Your task to perform on an android device: Go to wifi settings Image 0: 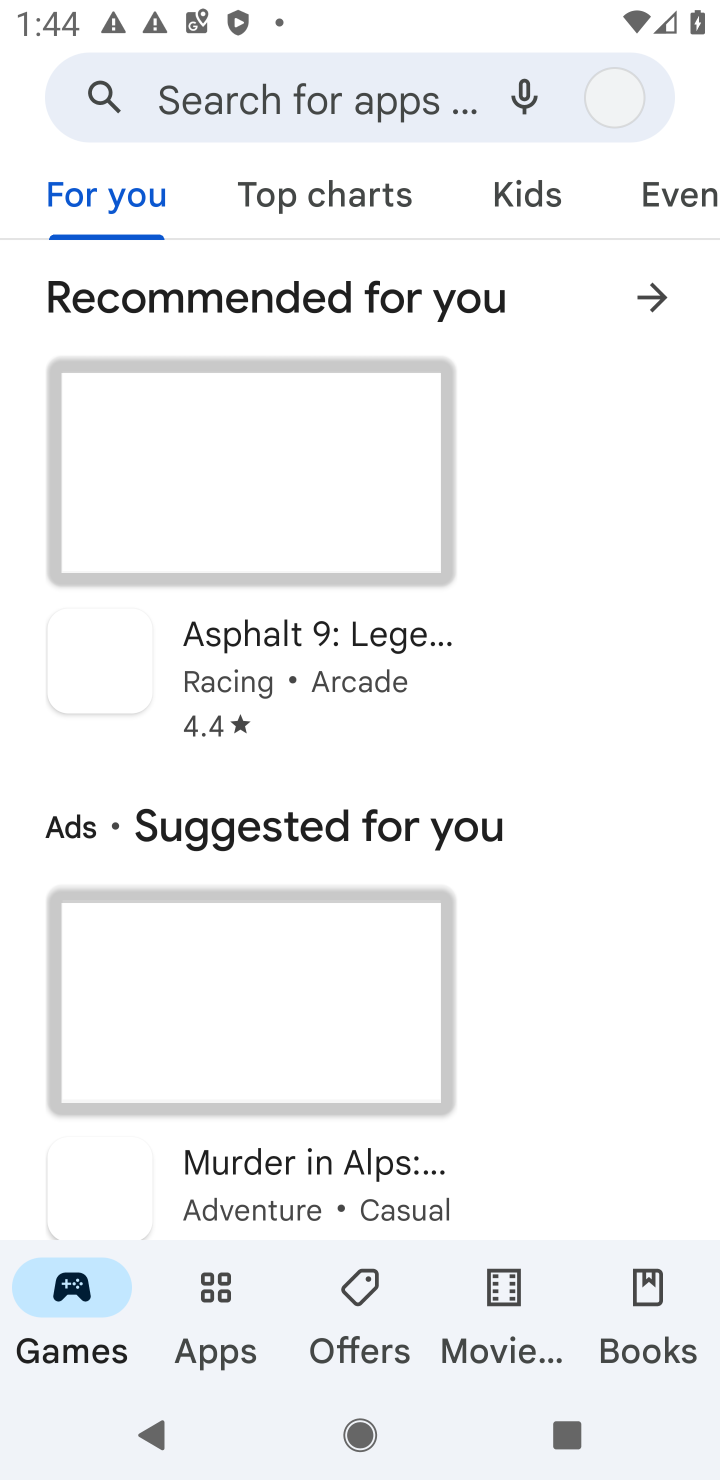
Step 0: press home button
Your task to perform on an android device: Go to wifi settings Image 1: 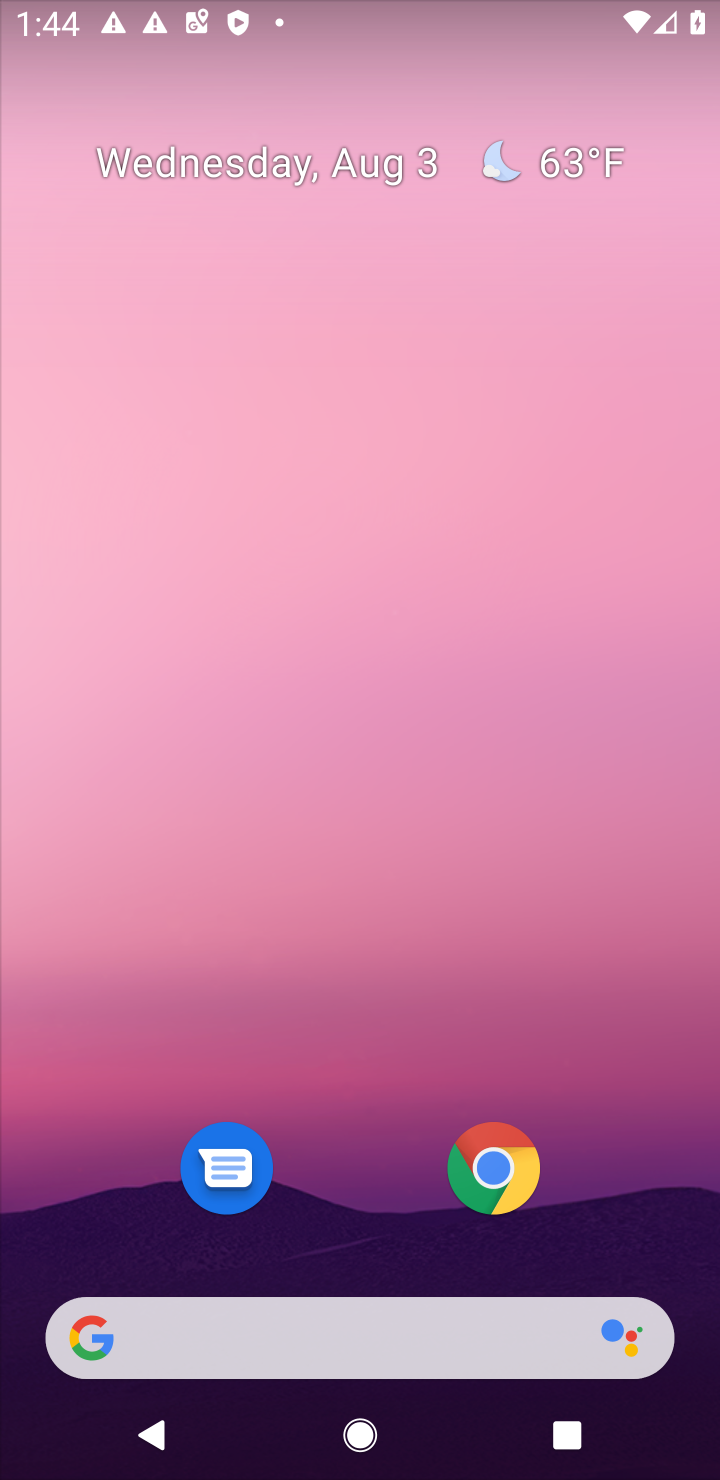
Step 1: drag from (657, 1230) to (572, 212)
Your task to perform on an android device: Go to wifi settings Image 2: 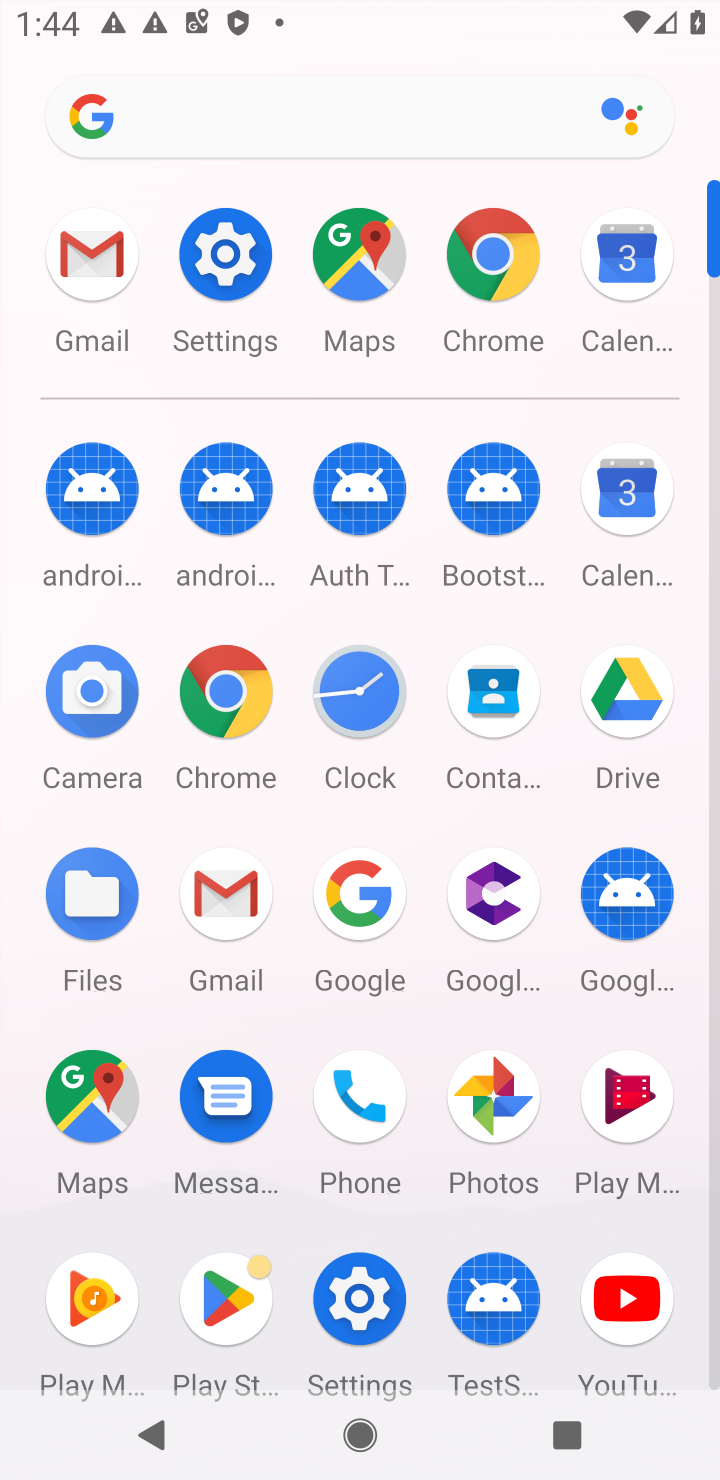
Step 2: click (357, 1301)
Your task to perform on an android device: Go to wifi settings Image 3: 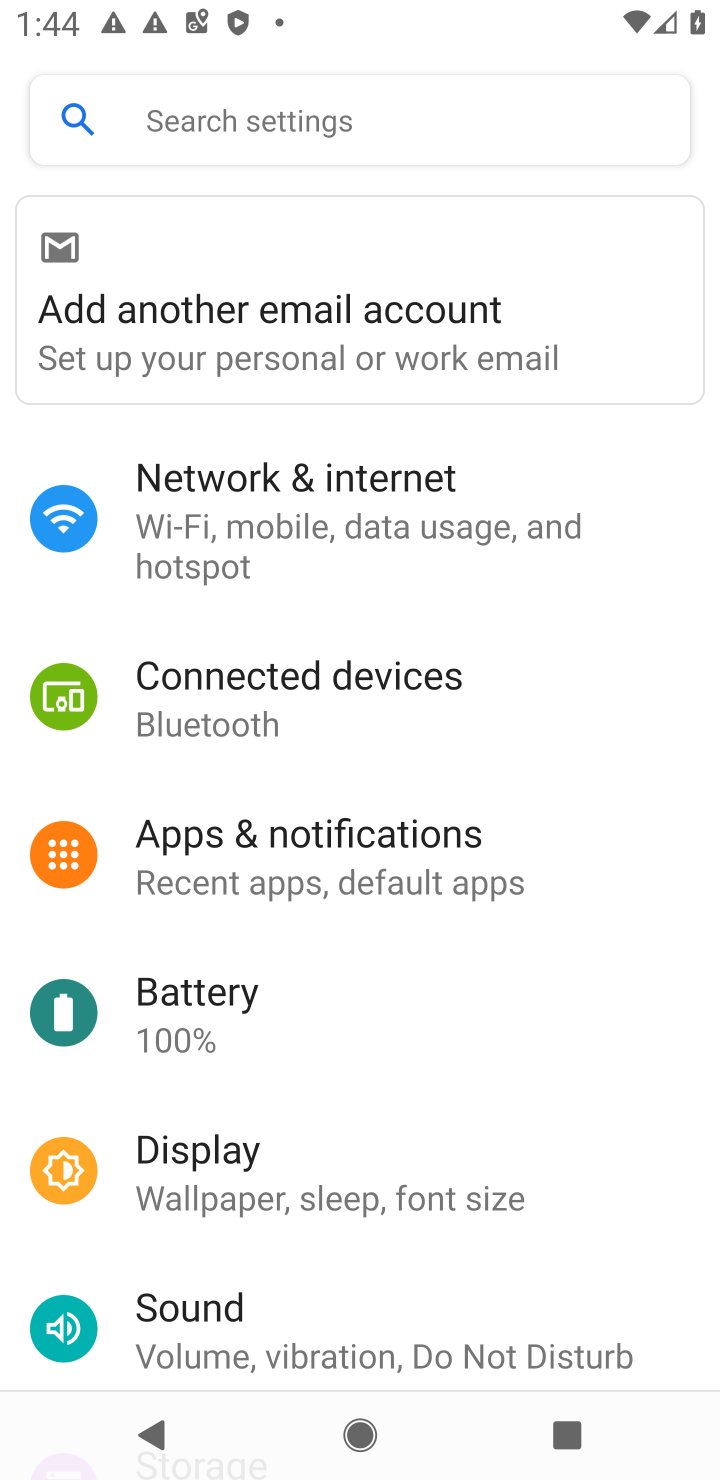
Step 3: click (241, 506)
Your task to perform on an android device: Go to wifi settings Image 4: 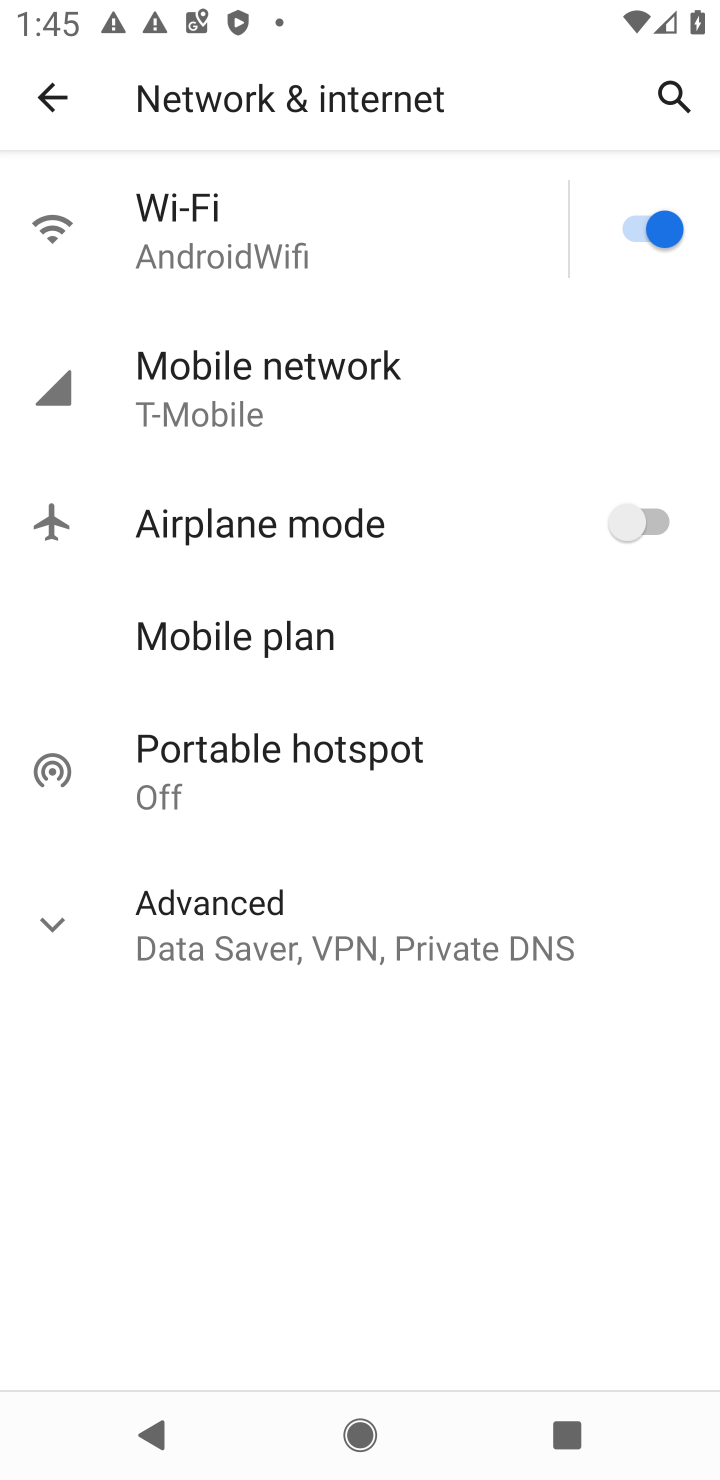
Step 4: click (205, 210)
Your task to perform on an android device: Go to wifi settings Image 5: 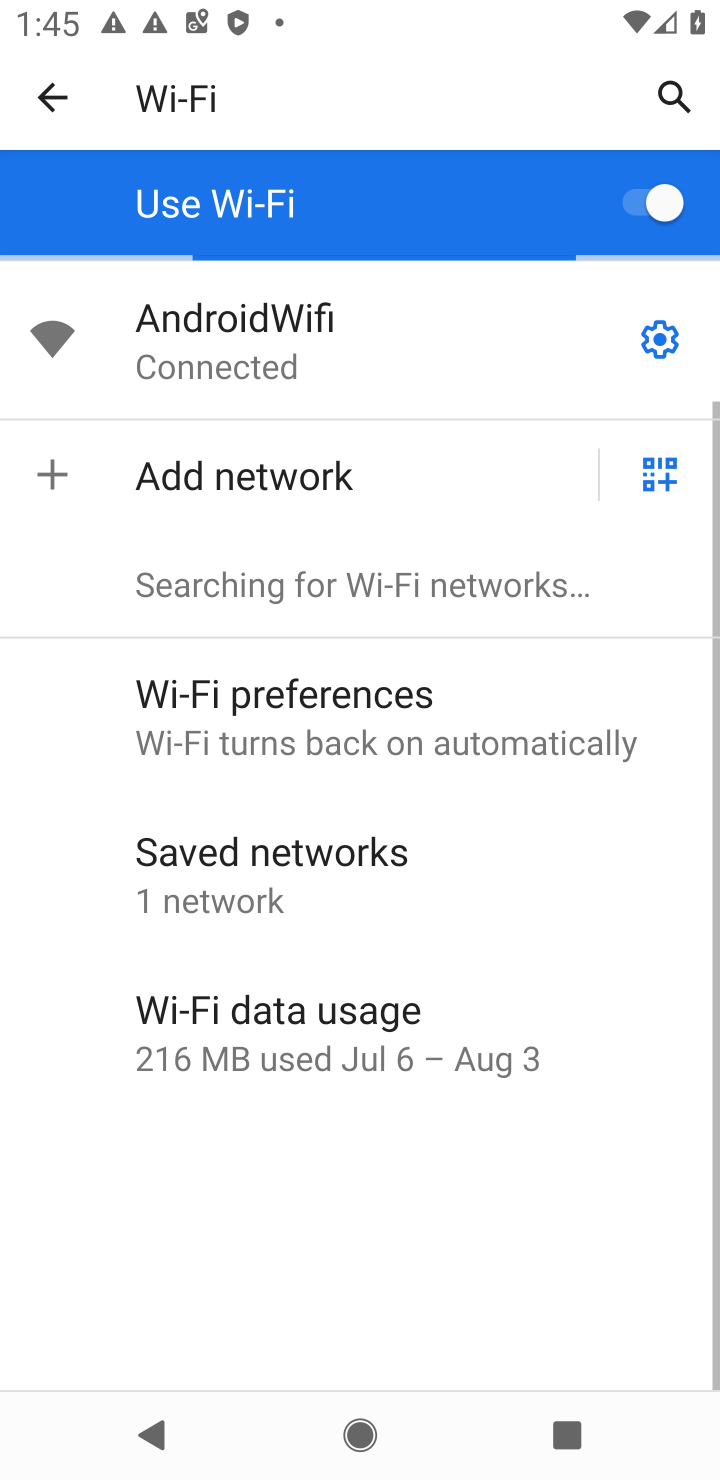
Step 5: click (659, 335)
Your task to perform on an android device: Go to wifi settings Image 6: 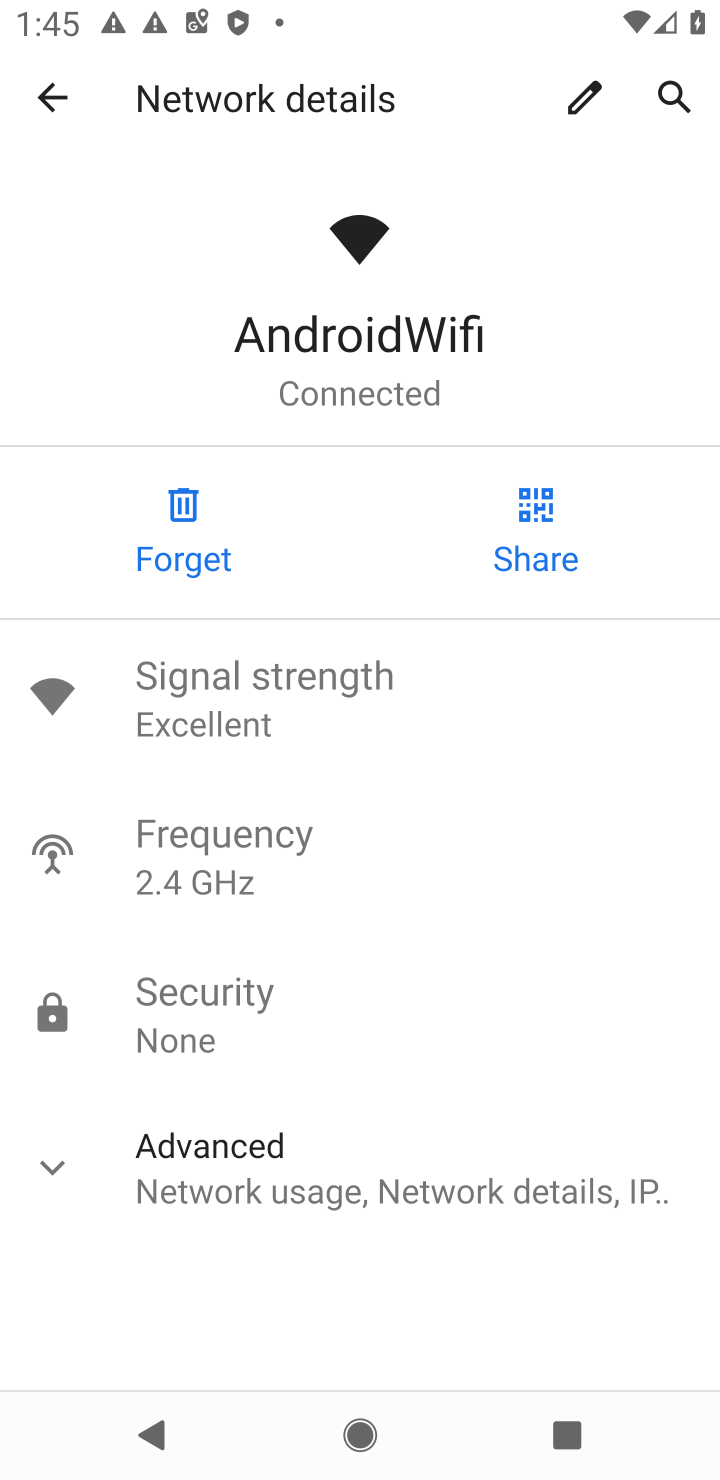
Step 6: task complete